Your task to perform on an android device: make emails show in primary in the gmail app Image 0: 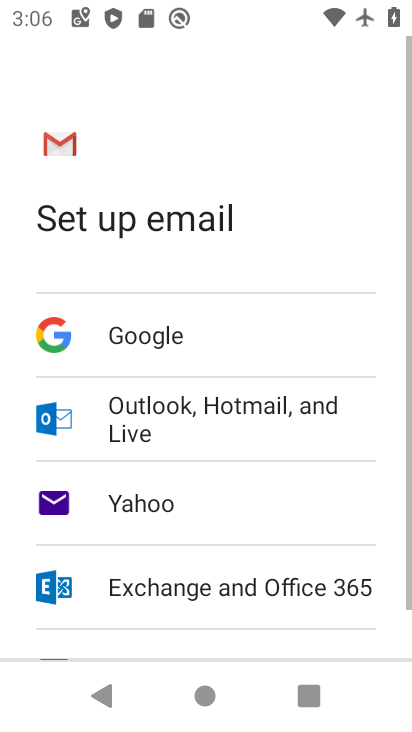
Step 0: press home button
Your task to perform on an android device: make emails show in primary in the gmail app Image 1: 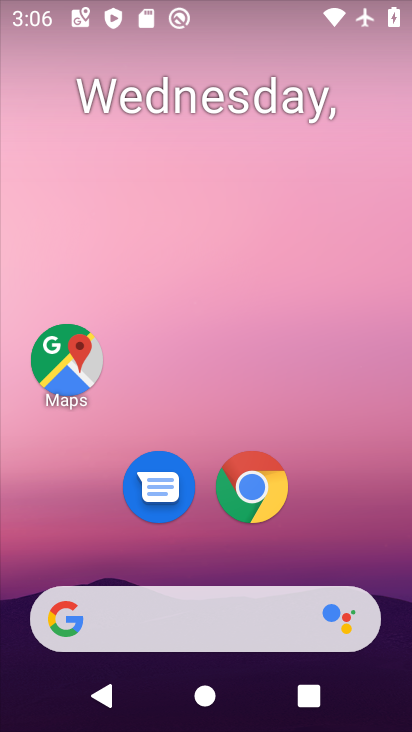
Step 1: drag from (352, 505) to (411, 77)
Your task to perform on an android device: make emails show in primary in the gmail app Image 2: 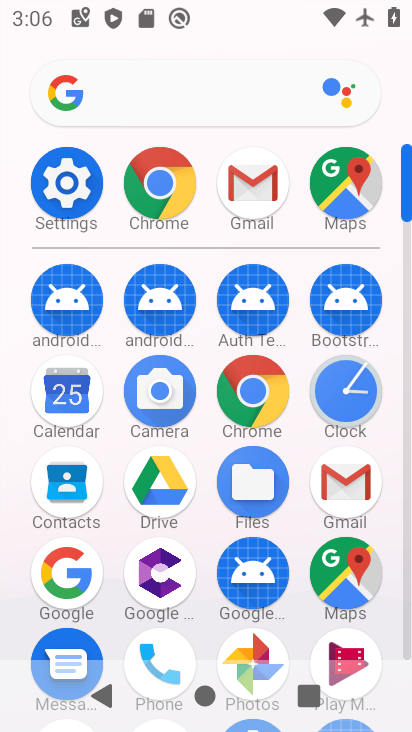
Step 2: click (258, 203)
Your task to perform on an android device: make emails show in primary in the gmail app Image 3: 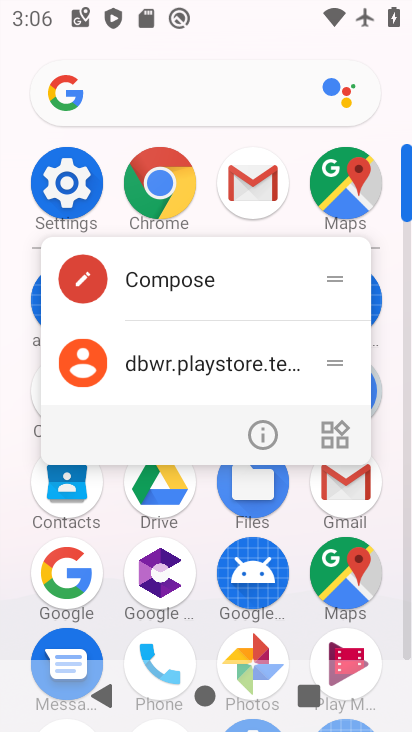
Step 3: click (258, 204)
Your task to perform on an android device: make emails show in primary in the gmail app Image 4: 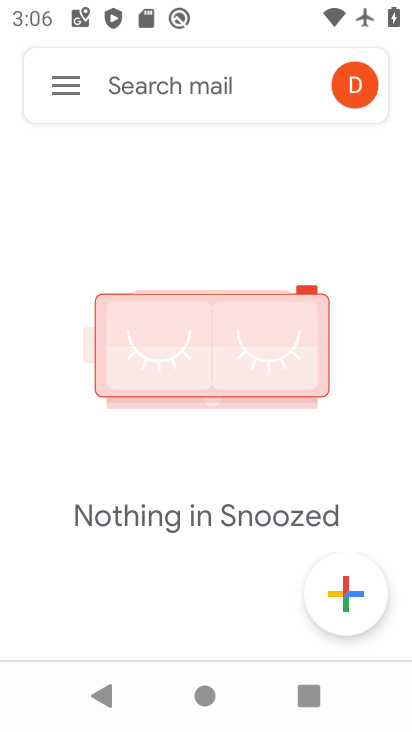
Step 4: click (85, 100)
Your task to perform on an android device: make emails show in primary in the gmail app Image 5: 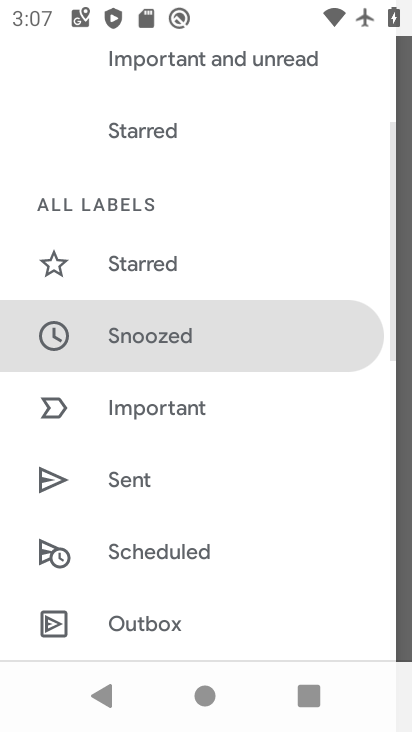
Step 5: drag from (85, 100) to (2, 594)
Your task to perform on an android device: make emails show in primary in the gmail app Image 6: 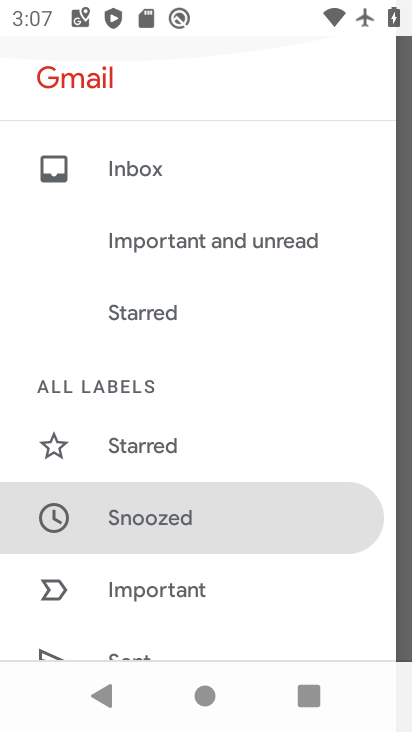
Step 6: drag from (134, 583) to (202, 159)
Your task to perform on an android device: make emails show in primary in the gmail app Image 7: 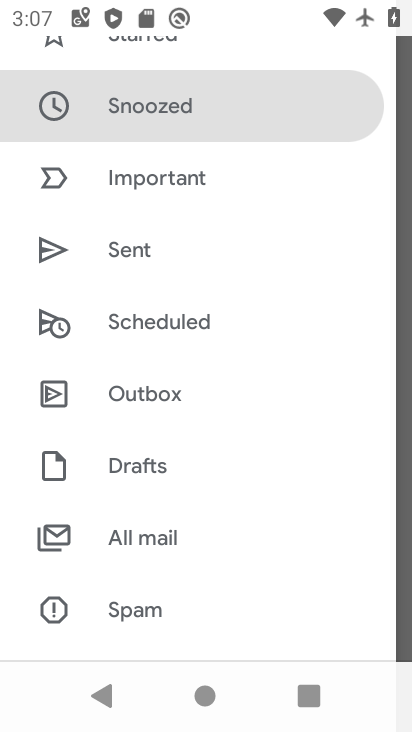
Step 7: drag from (142, 585) to (220, 159)
Your task to perform on an android device: make emails show in primary in the gmail app Image 8: 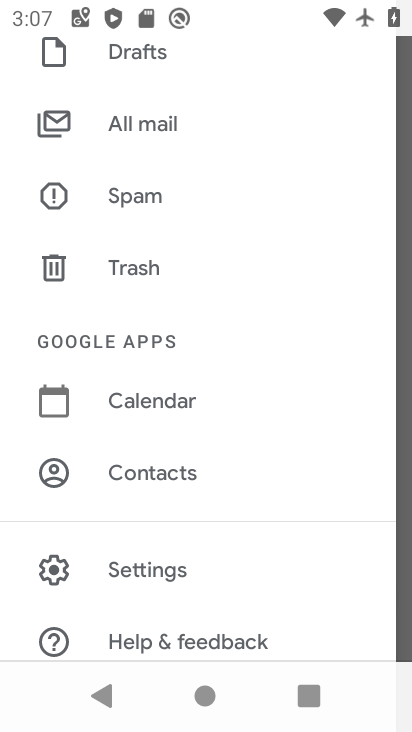
Step 8: click (133, 564)
Your task to perform on an android device: make emails show in primary in the gmail app Image 9: 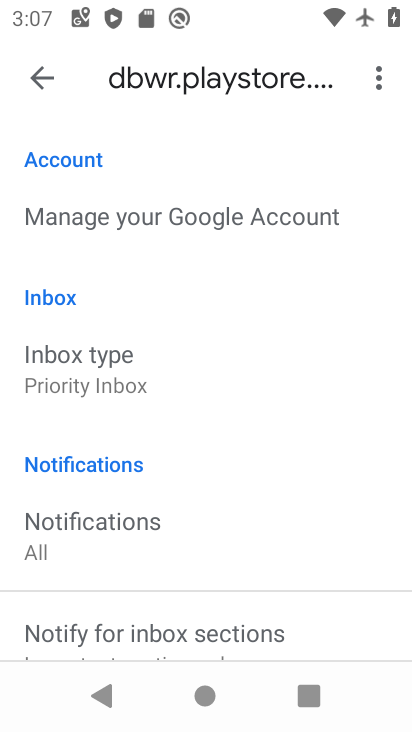
Step 9: click (116, 388)
Your task to perform on an android device: make emails show in primary in the gmail app Image 10: 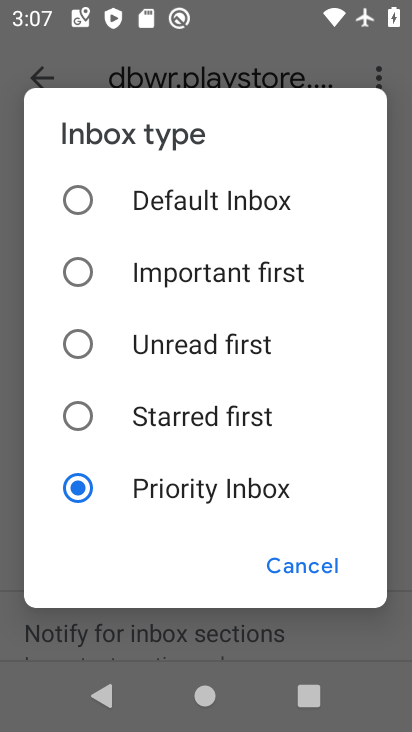
Step 10: click (203, 203)
Your task to perform on an android device: make emails show in primary in the gmail app Image 11: 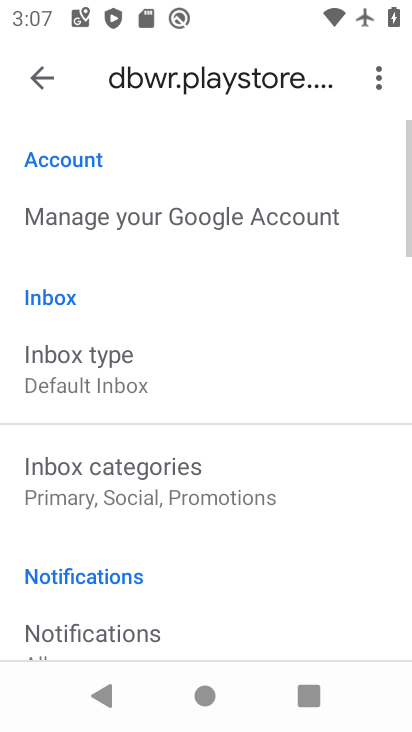
Step 11: task complete